Your task to perform on an android device: turn on improve location accuracy Image 0: 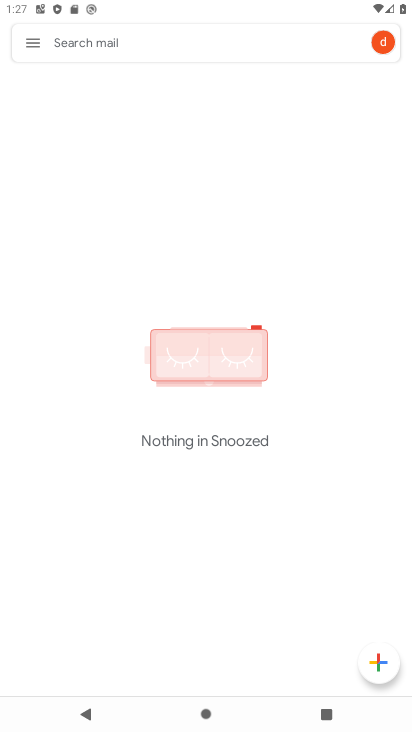
Step 0: press home button
Your task to perform on an android device: turn on improve location accuracy Image 1: 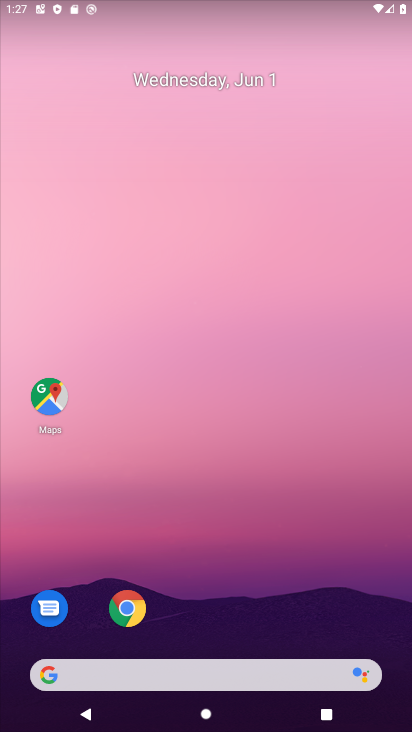
Step 1: drag from (186, 636) to (194, 94)
Your task to perform on an android device: turn on improve location accuracy Image 2: 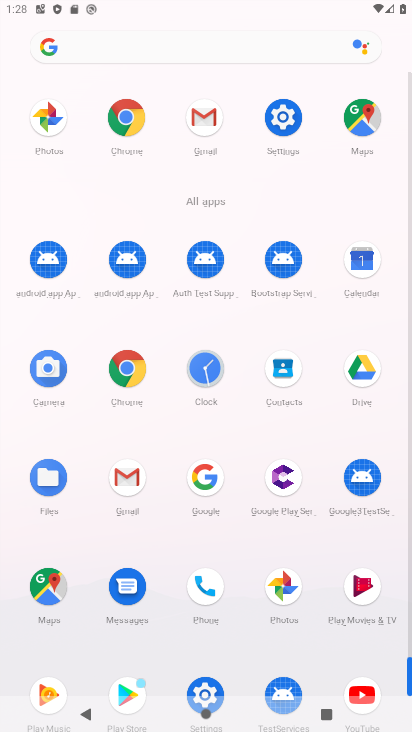
Step 2: drag from (200, 572) to (174, 28)
Your task to perform on an android device: turn on improve location accuracy Image 3: 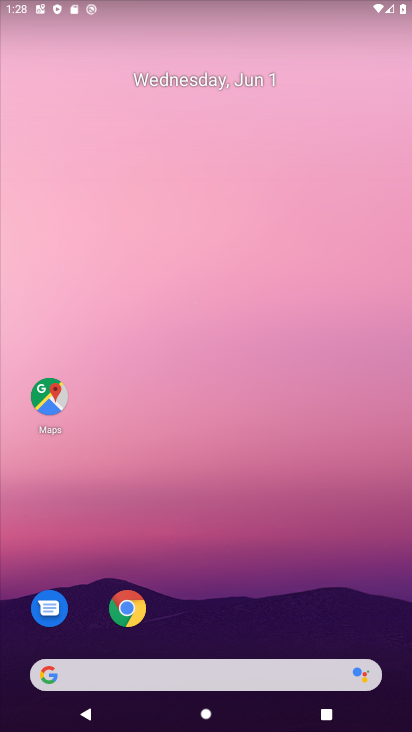
Step 3: drag from (220, 601) to (198, 17)
Your task to perform on an android device: turn on improve location accuracy Image 4: 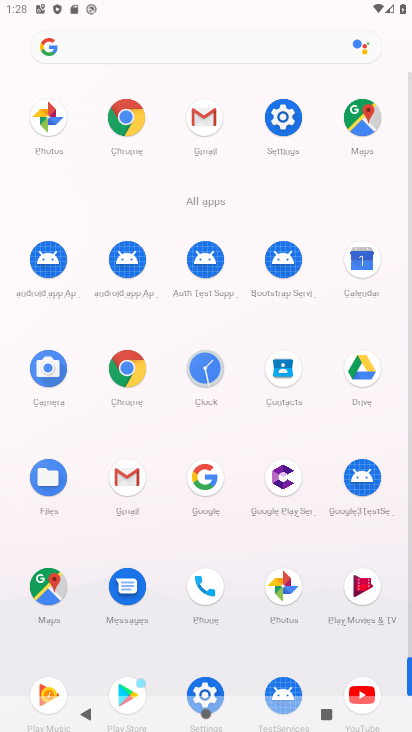
Step 4: click (156, 512)
Your task to perform on an android device: turn on improve location accuracy Image 5: 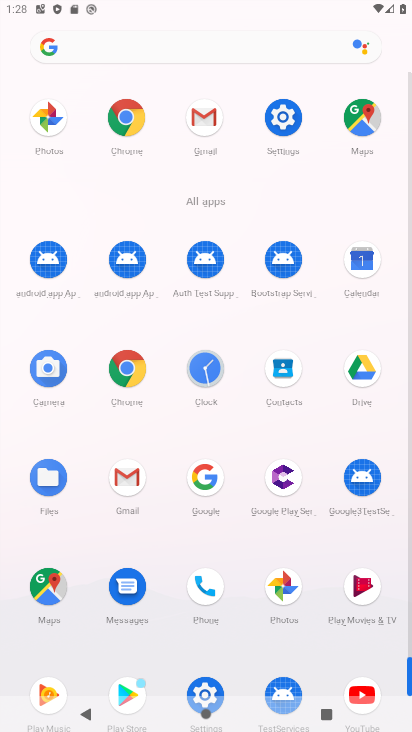
Step 5: click (206, 677)
Your task to perform on an android device: turn on improve location accuracy Image 6: 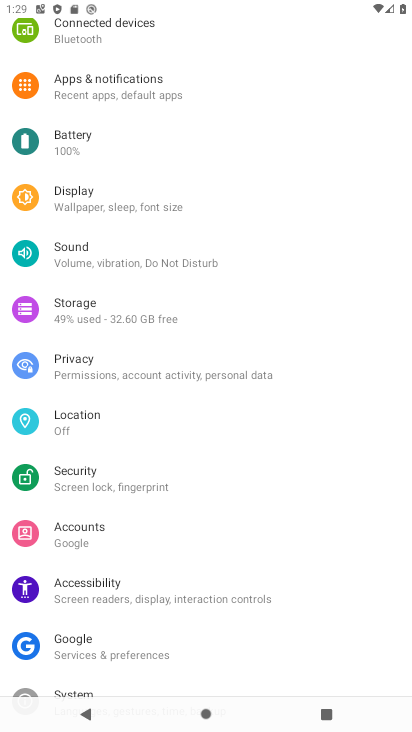
Step 6: click (79, 415)
Your task to perform on an android device: turn on improve location accuracy Image 7: 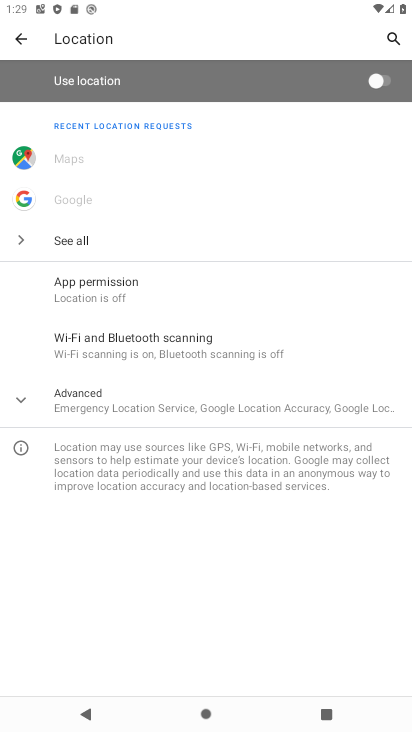
Step 7: click (118, 401)
Your task to perform on an android device: turn on improve location accuracy Image 8: 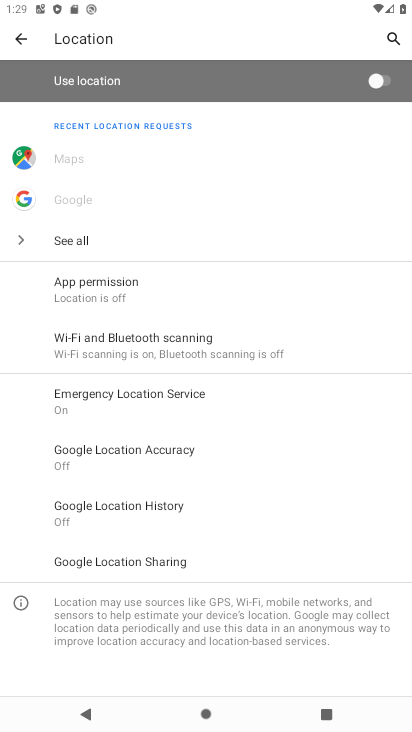
Step 8: click (104, 452)
Your task to perform on an android device: turn on improve location accuracy Image 9: 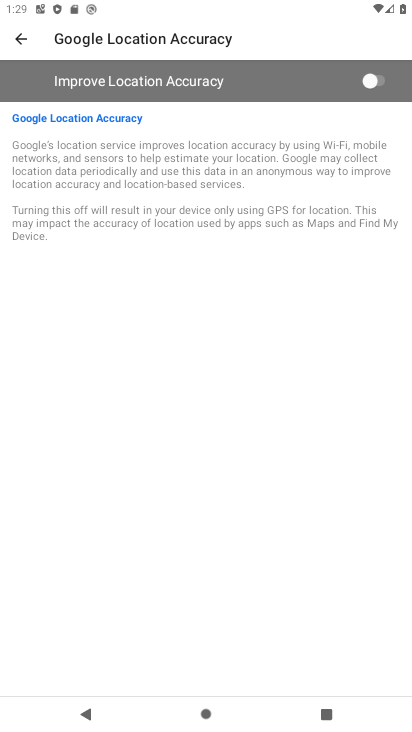
Step 9: click (382, 76)
Your task to perform on an android device: turn on improve location accuracy Image 10: 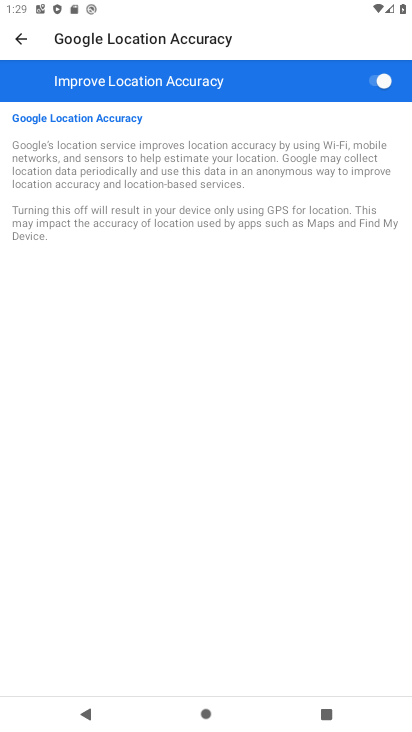
Step 10: task complete